Your task to perform on an android device: delete a single message in the gmail app Image 0: 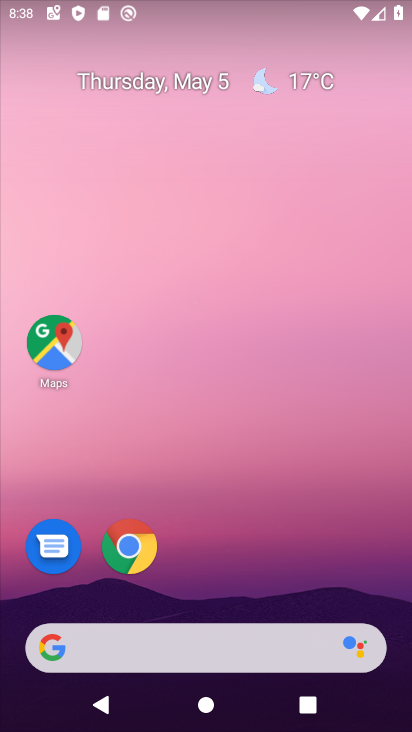
Step 0: drag from (159, 634) to (344, 87)
Your task to perform on an android device: delete a single message in the gmail app Image 1: 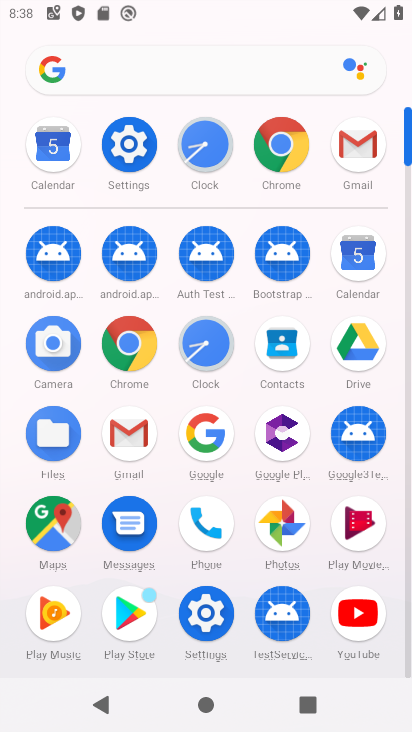
Step 1: click (353, 151)
Your task to perform on an android device: delete a single message in the gmail app Image 2: 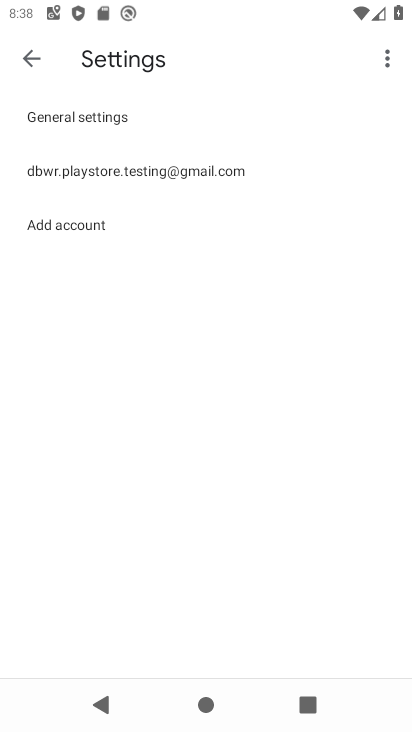
Step 2: click (30, 59)
Your task to perform on an android device: delete a single message in the gmail app Image 3: 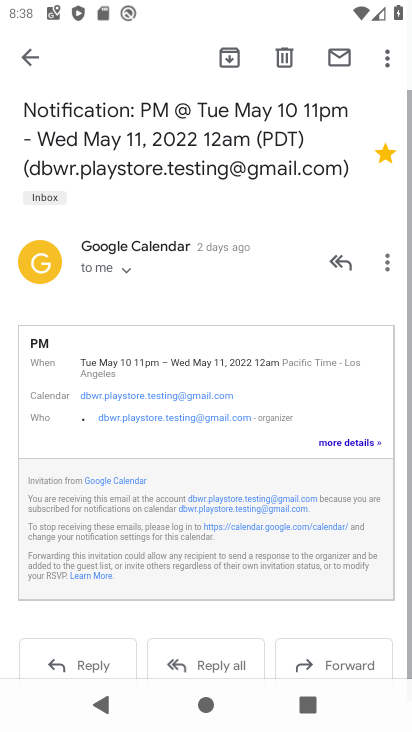
Step 3: click (28, 61)
Your task to perform on an android device: delete a single message in the gmail app Image 4: 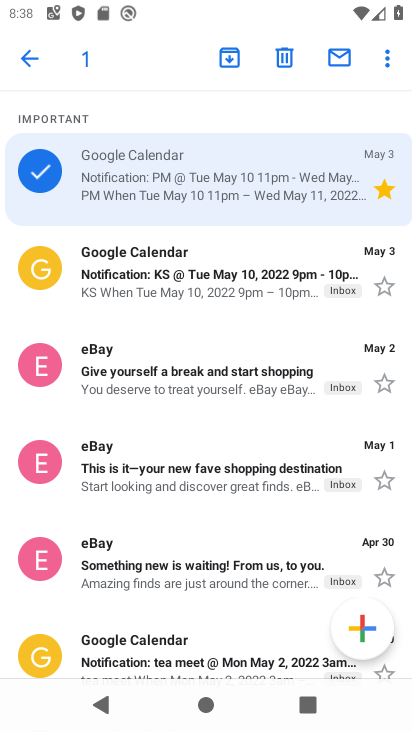
Step 4: click (285, 55)
Your task to perform on an android device: delete a single message in the gmail app Image 5: 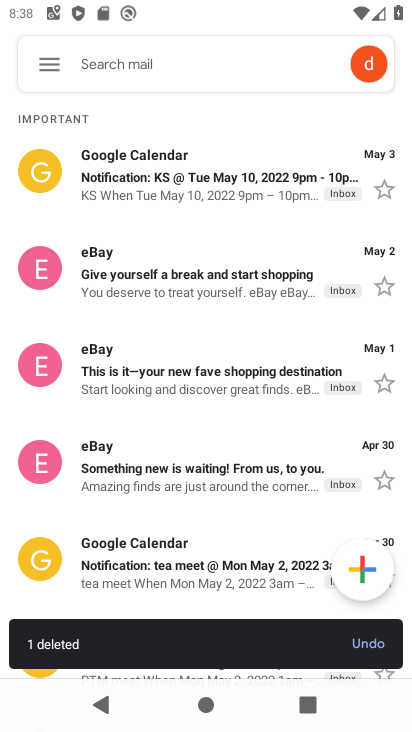
Step 5: task complete